Your task to perform on an android device: toggle sleep mode Image 0: 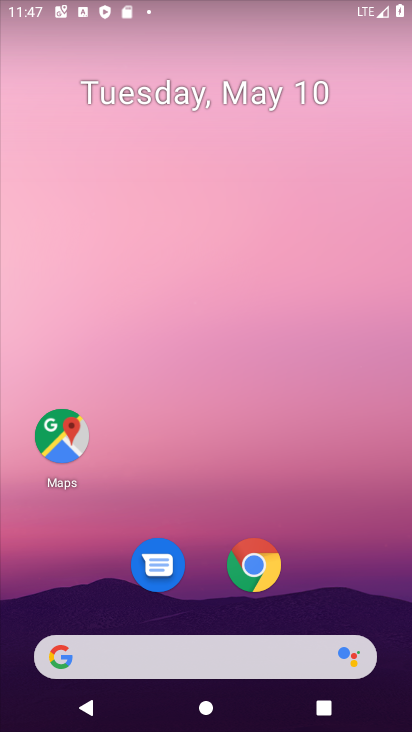
Step 0: drag from (32, 640) to (263, 148)
Your task to perform on an android device: toggle sleep mode Image 1: 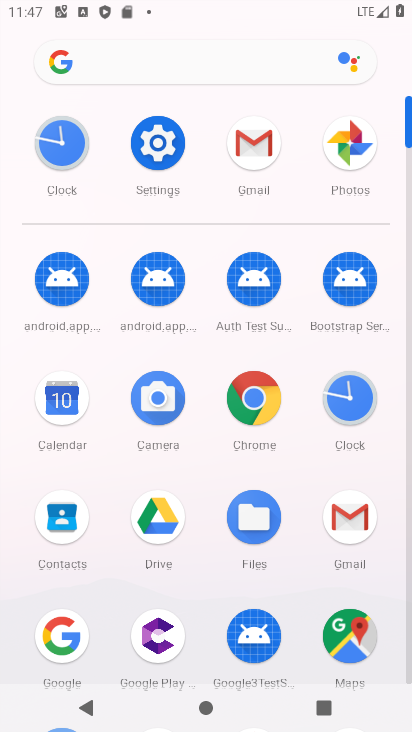
Step 1: click (156, 138)
Your task to perform on an android device: toggle sleep mode Image 2: 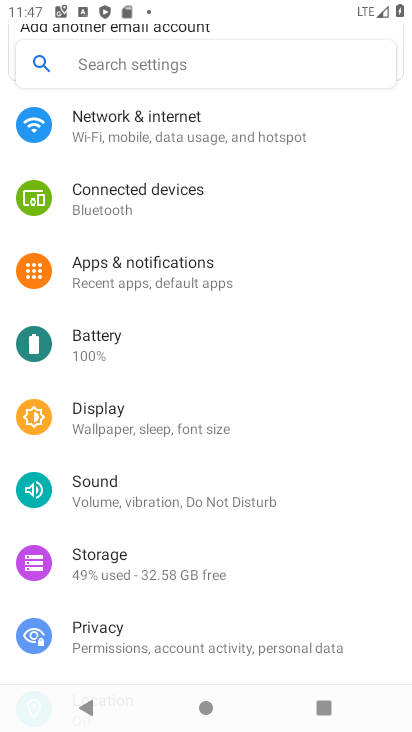
Step 2: click (234, 423)
Your task to perform on an android device: toggle sleep mode Image 3: 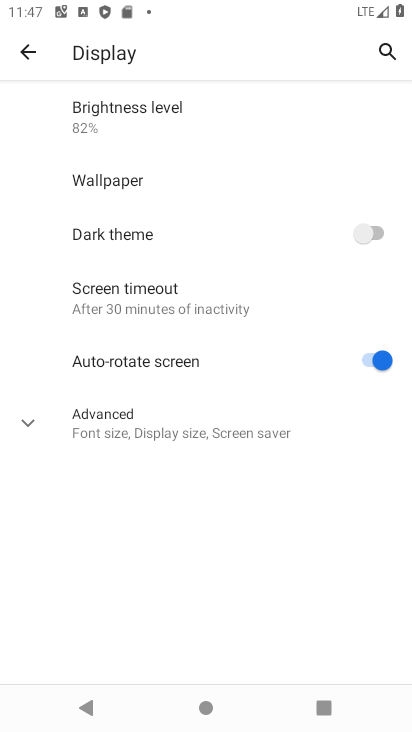
Step 3: task complete